Your task to perform on an android device: turn off wifi Image 0: 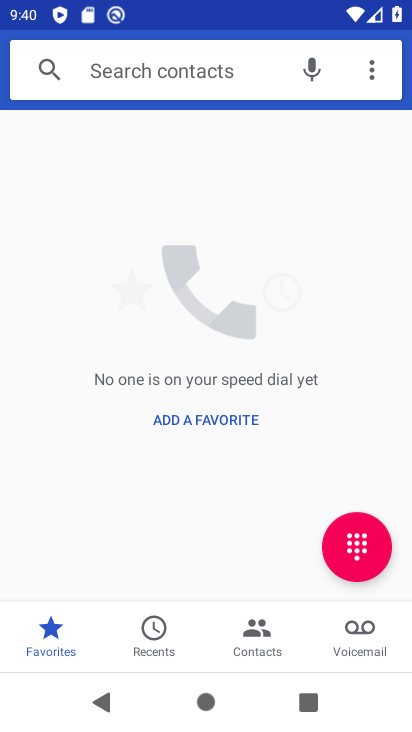
Step 0: press home button
Your task to perform on an android device: turn off wifi Image 1: 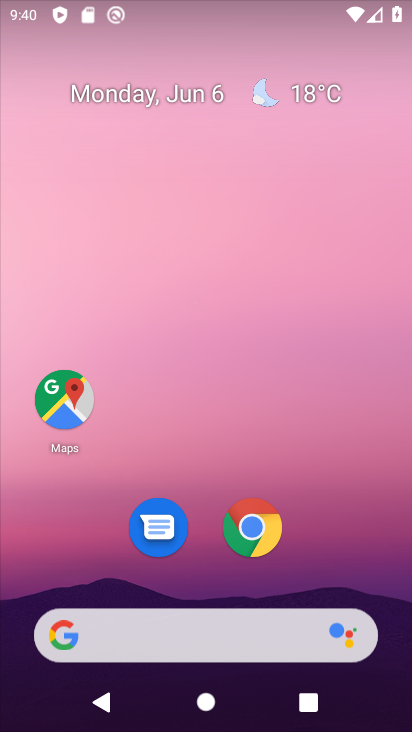
Step 1: drag from (365, 542) to (390, 70)
Your task to perform on an android device: turn off wifi Image 2: 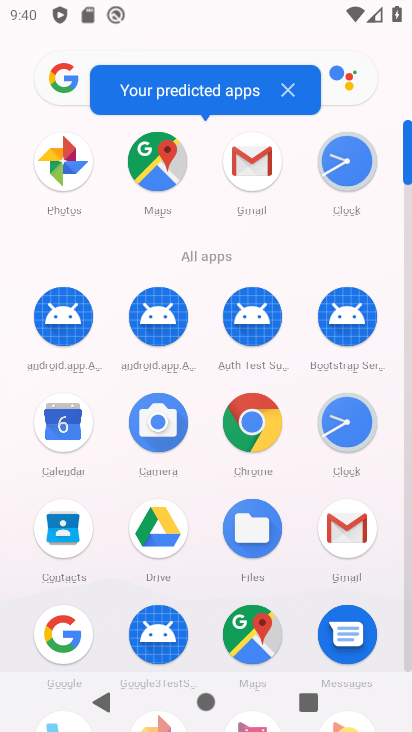
Step 2: drag from (289, 479) to (305, 199)
Your task to perform on an android device: turn off wifi Image 3: 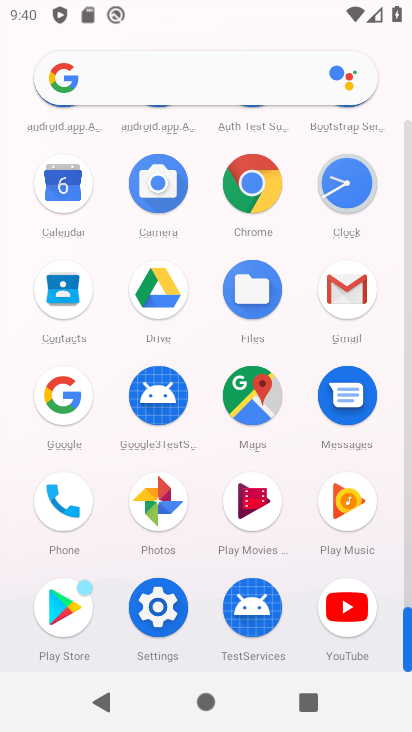
Step 3: click (162, 611)
Your task to perform on an android device: turn off wifi Image 4: 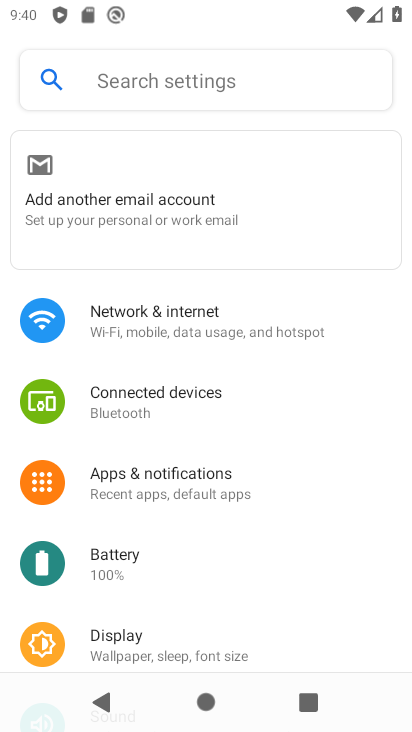
Step 4: click (280, 317)
Your task to perform on an android device: turn off wifi Image 5: 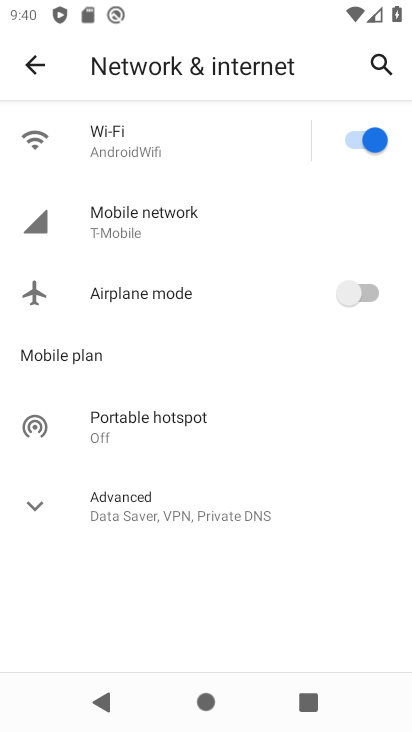
Step 5: click (379, 136)
Your task to perform on an android device: turn off wifi Image 6: 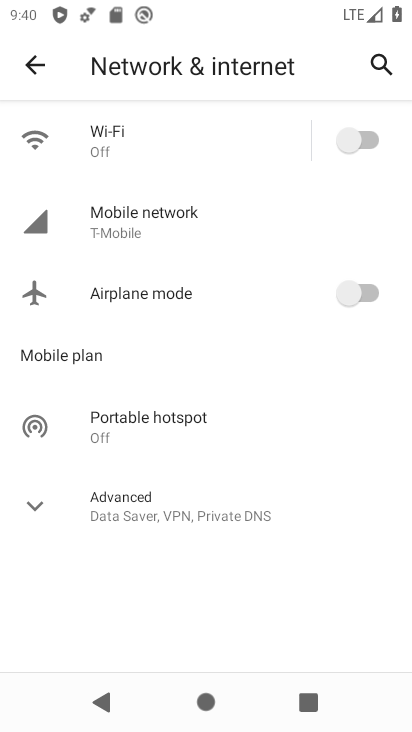
Step 6: task complete